Your task to perform on an android device: Open accessibility settings Image 0: 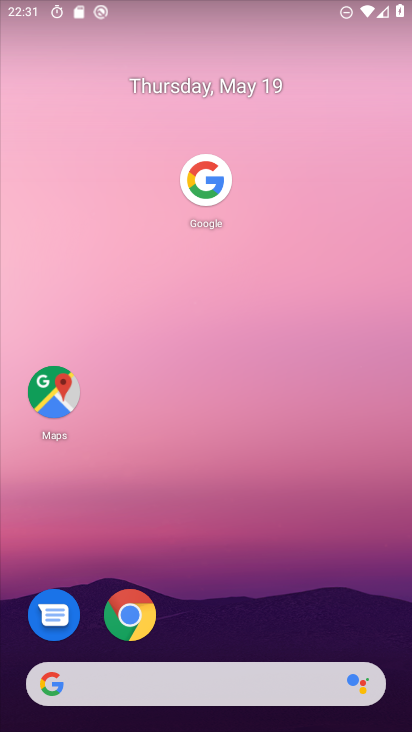
Step 0: drag from (244, 603) to (302, 39)
Your task to perform on an android device: Open accessibility settings Image 1: 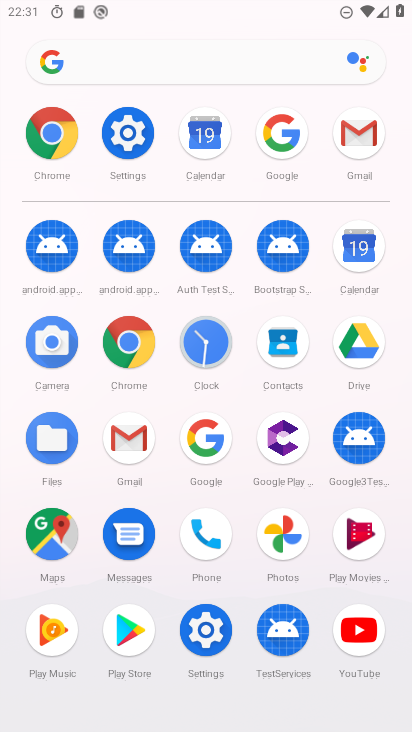
Step 1: click (130, 137)
Your task to perform on an android device: Open accessibility settings Image 2: 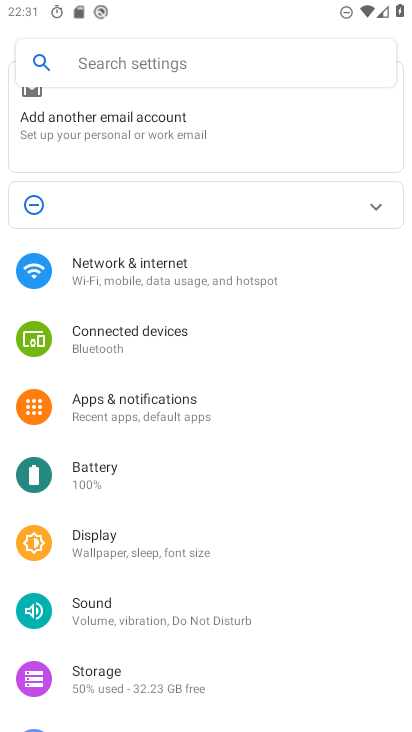
Step 2: drag from (234, 542) to (246, 135)
Your task to perform on an android device: Open accessibility settings Image 3: 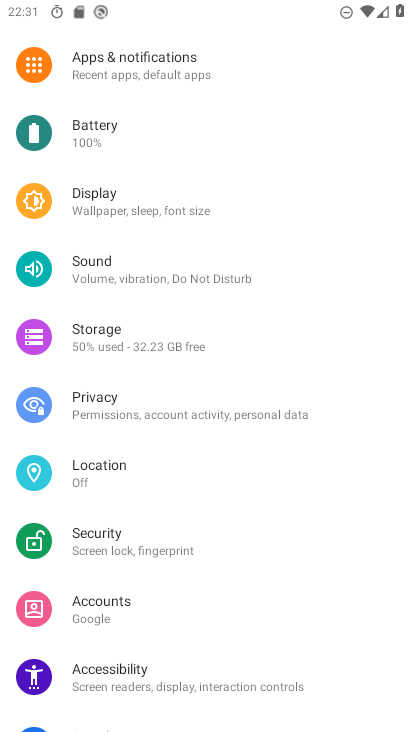
Step 3: drag from (198, 595) to (187, 458)
Your task to perform on an android device: Open accessibility settings Image 4: 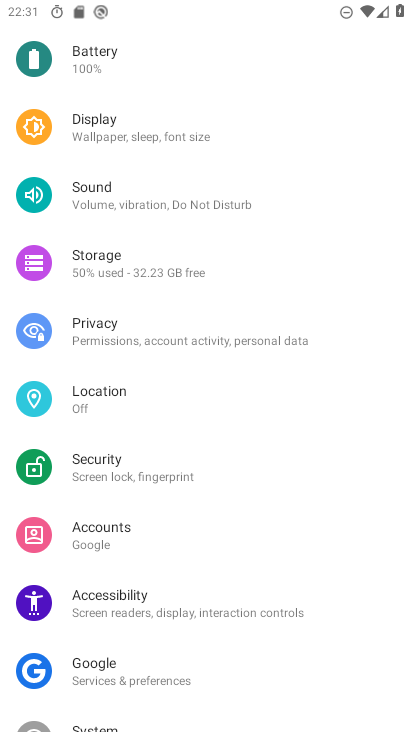
Step 4: click (145, 596)
Your task to perform on an android device: Open accessibility settings Image 5: 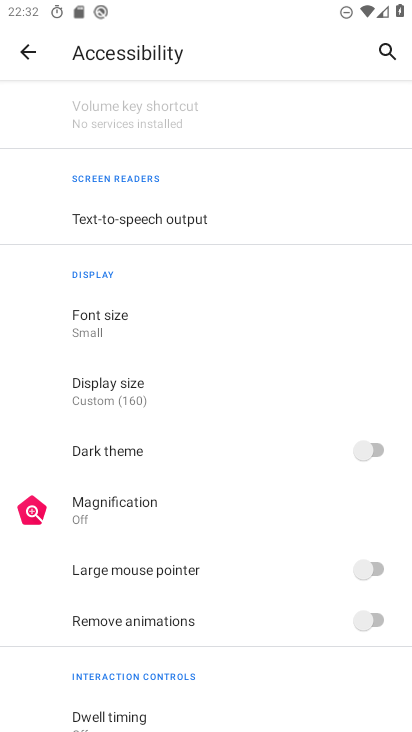
Step 5: task complete